Your task to perform on an android device: Search for Mexican restaurants on Maps Image 0: 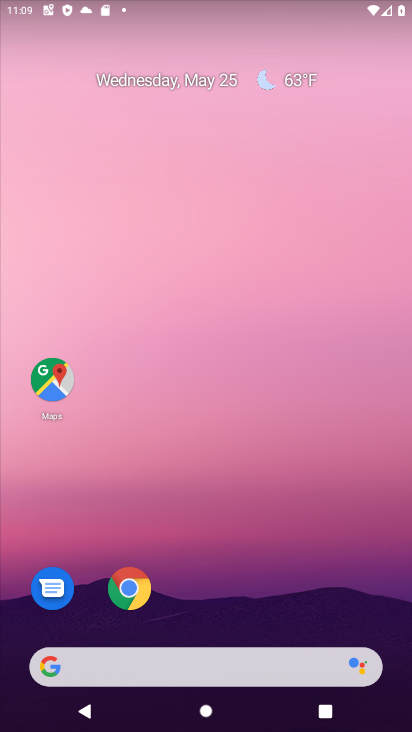
Step 0: click (48, 390)
Your task to perform on an android device: Search for Mexican restaurants on Maps Image 1: 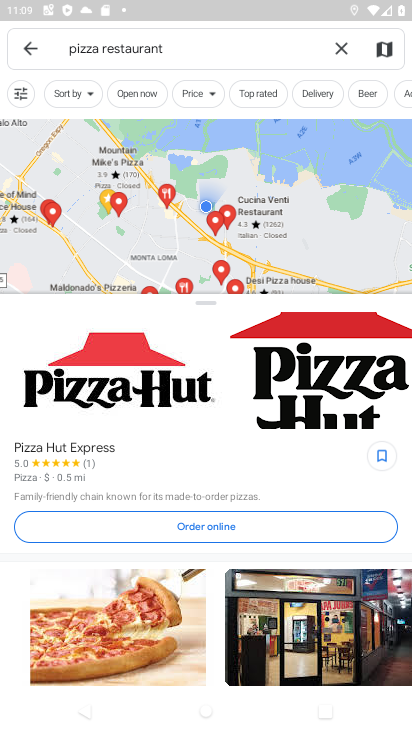
Step 1: click (336, 48)
Your task to perform on an android device: Search for Mexican restaurants on Maps Image 2: 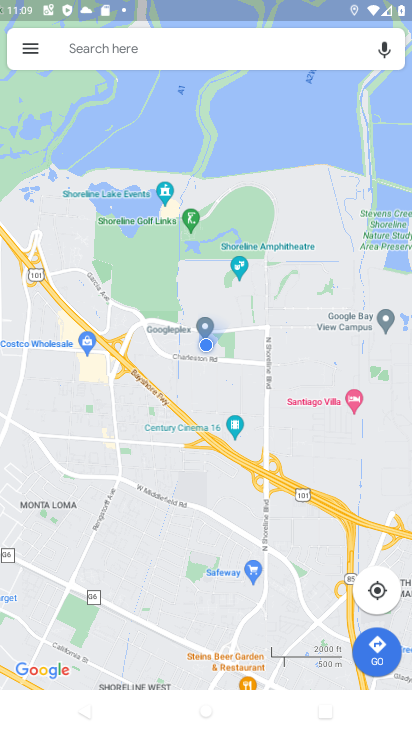
Step 2: click (232, 46)
Your task to perform on an android device: Search for Mexican restaurants on Maps Image 3: 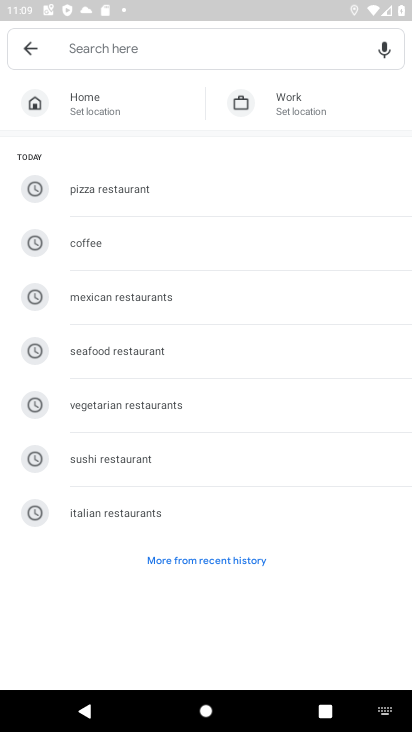
Step 3: click (144, 296)
Your task to perform on an android device: Search for Mexican restaurants on Maps Image 4: 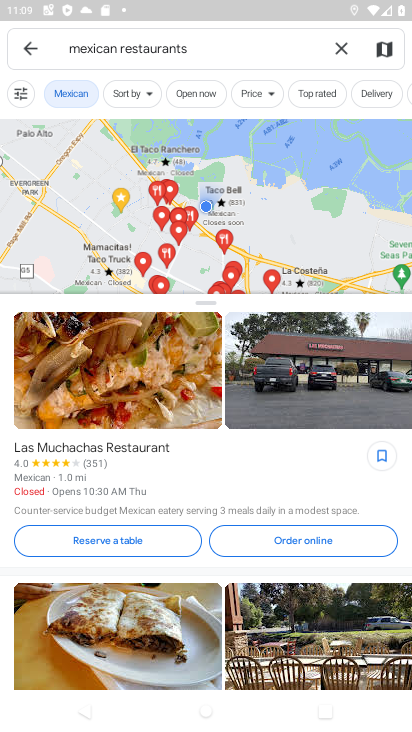
Step 4: task complete